Your task to perform on an android device: Open CNN.com Image 0: 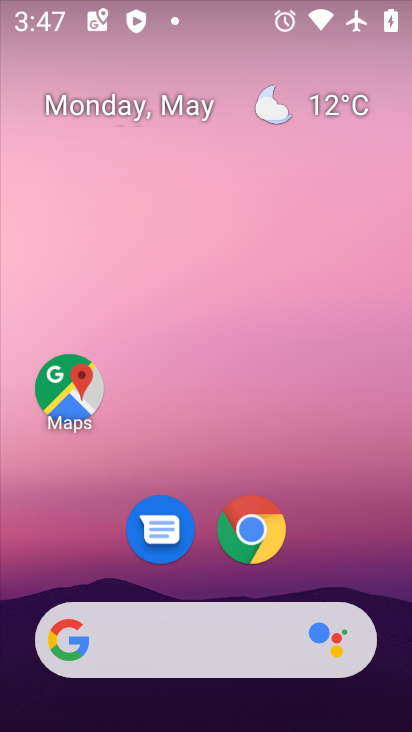
Step 0: click (256, 535)
Your task to perform on an android device: Open CNN.com Image 1: 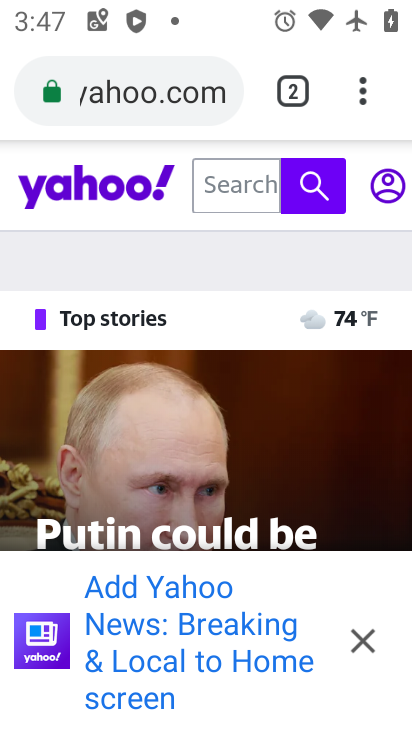
Step 1: click (131, 100)
Your task to perform on an android device: Open CNN.com Image 2: 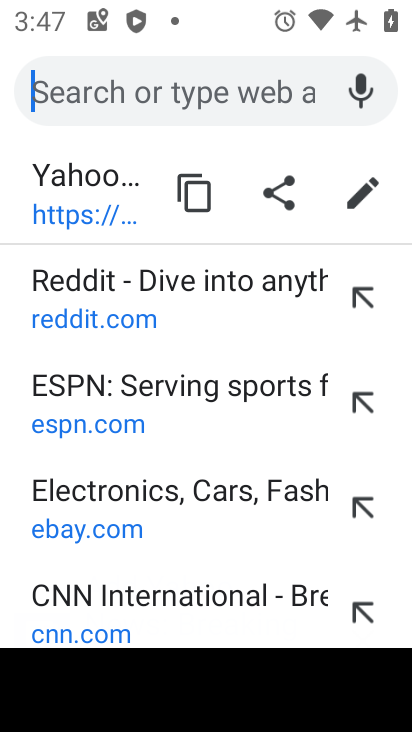
Step 2: type "CNN.com"
Your task to perform on an android device: Open CNN.com Image 3: 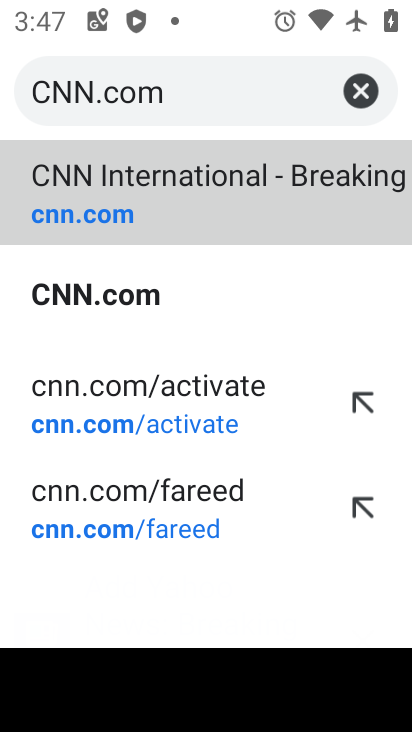
Step 3: click (121, 187)
Your task to perform on an android device: Open CNN.com Image 4: 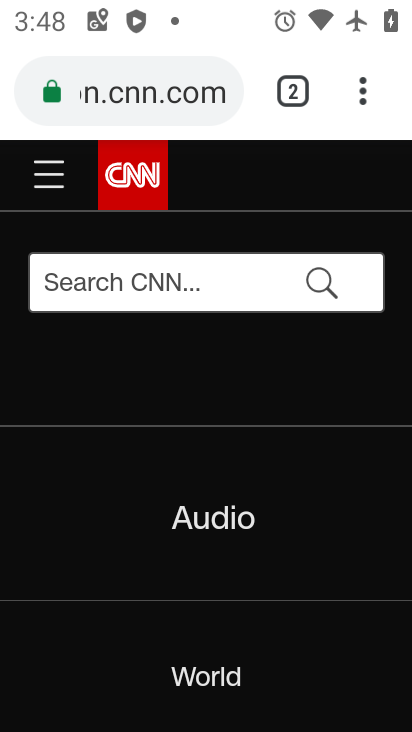
Step 4: task complete